Your task to perform on an android device: move an email to a new category in the gmail app Image 0: 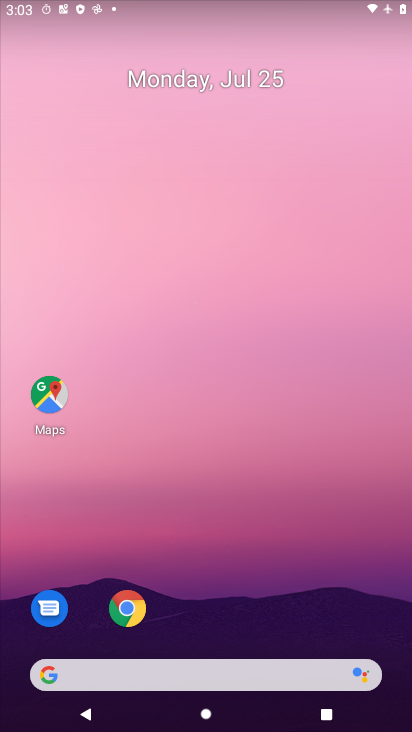
Step 0: drag from (182, 677) to (178, 222)
Your task to perform on an android device: move an email to a new category in the gmail app Image 1: 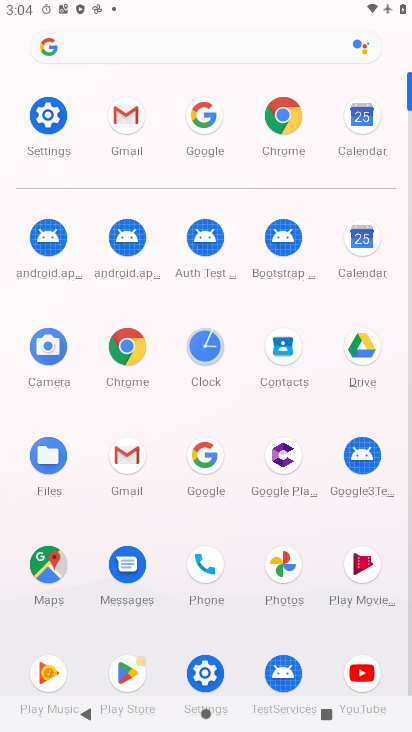
Step 1: click (141, 442)
Your task to perform on an android device: move an email to a new category in the gmail app Image 2: 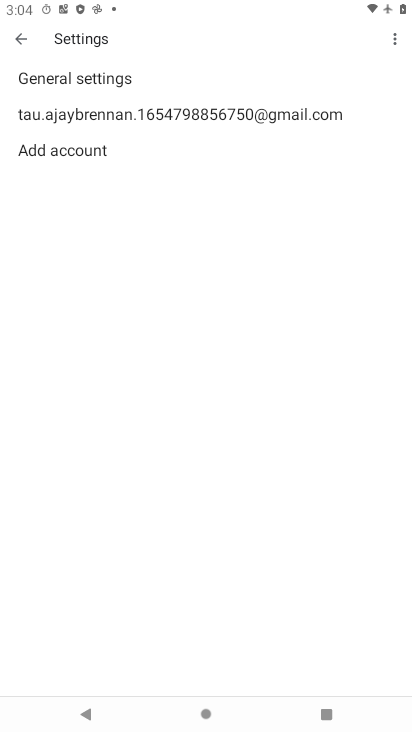
Step 2: click (28, 28)
Your task to perform on an android device: move an email to a new category in the gmail app Image 3: 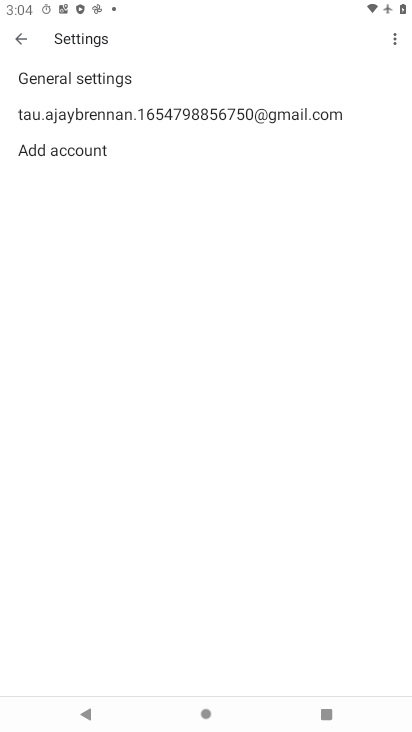
Step 3: click (19, 40)
Your task to perform on an android device: move an email to a new category in the gmail app Image 4: 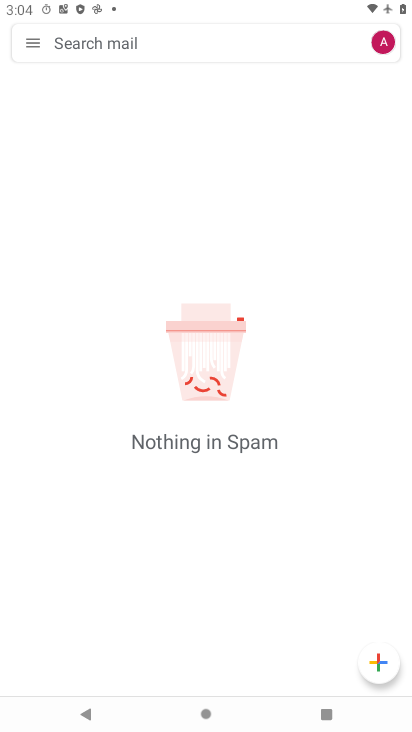
Step 4: click (20, 39)
Your task to perform on an android device: move an email to a new category in the gmail app Image 5: 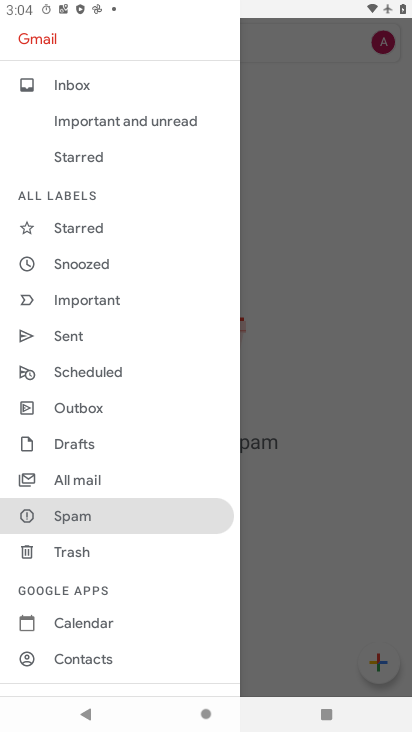
Step 5: click (92, 476)
Your task to perform on an android device: move an email to a new category in the gmail app Image 6: 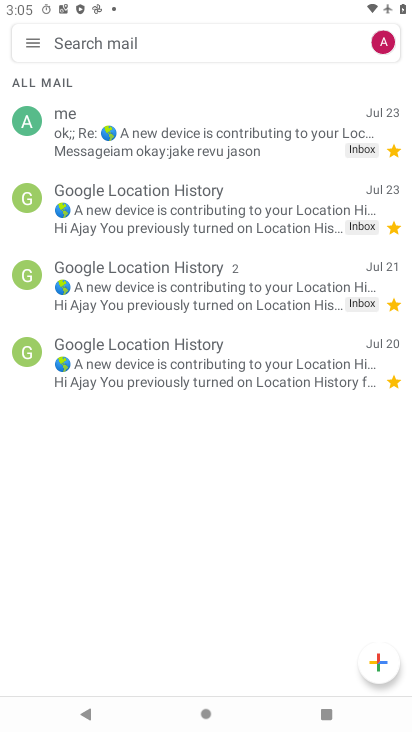
Step 6: click (181, 149)
Your task to perform on an android device: move an email to a new category in the gmail app Image 7: 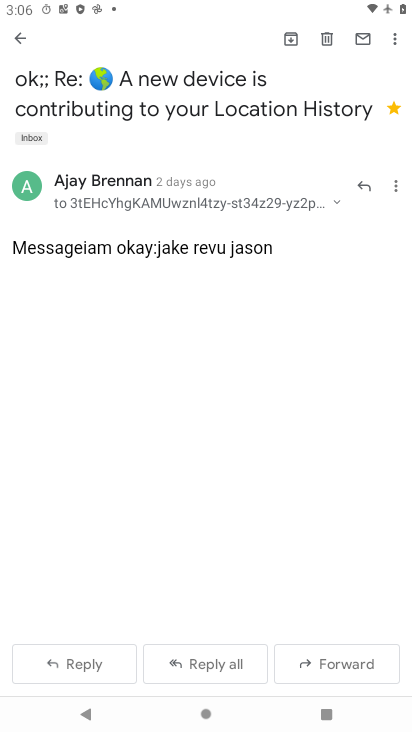
Step 7: click (399, 28)
Your task to perform on an android device: move an email to a new category in the gmail app Image 8: 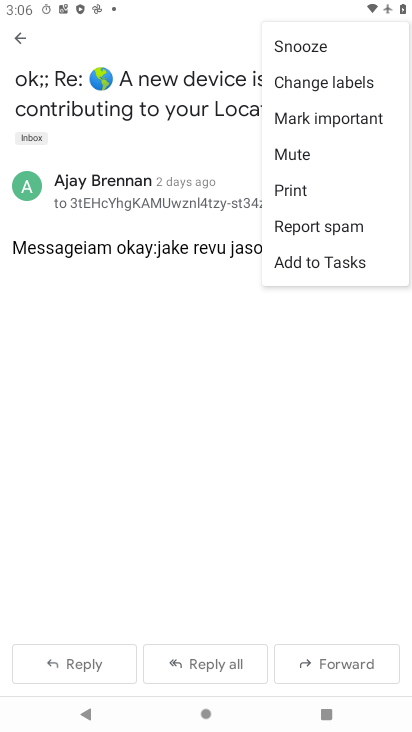
Step 8: click (362, 80)
Your task to perform on an android device: move an email to a new category in the gmail app Image 9: 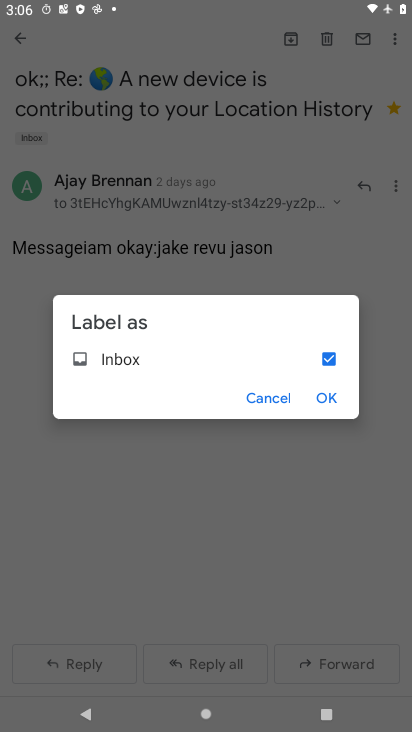
Step 9: click (328, 408)
Your task to perform on an android device: move an email to a new category in the gmail app Image 10: 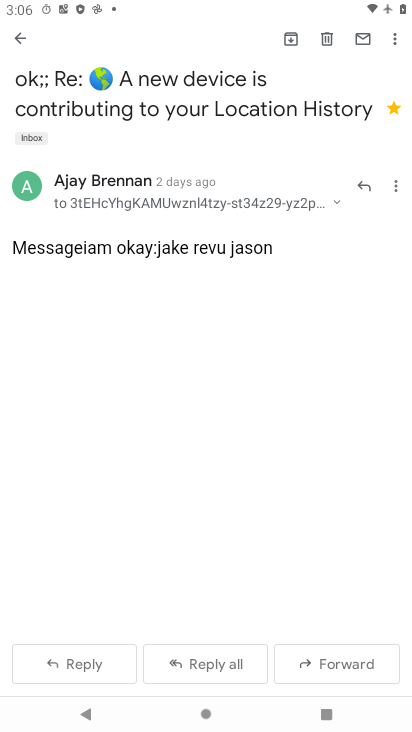
Step 10: task complete